Your task to perform on an android device: Go to CNN.com Image 0: 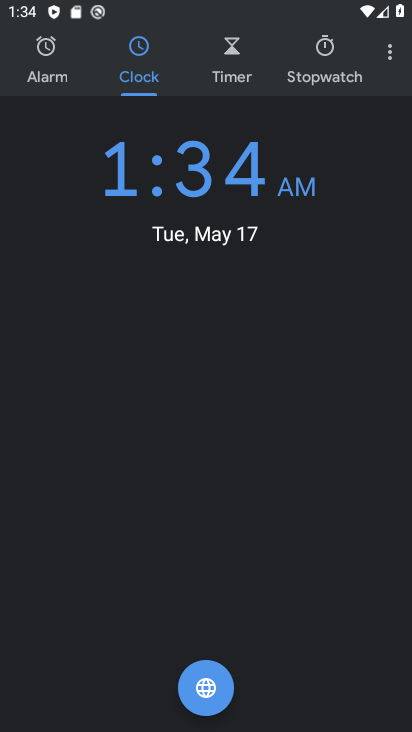
Step 0: press home button
Your task to perform on an android device: Go to CNN.com Image 1: 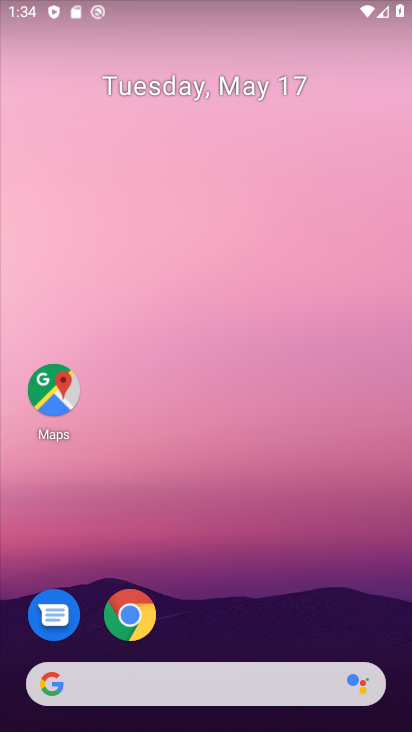
Step 1: click (132, 621)
Your task to perform on an android device: Go to CNN.com Image 2: 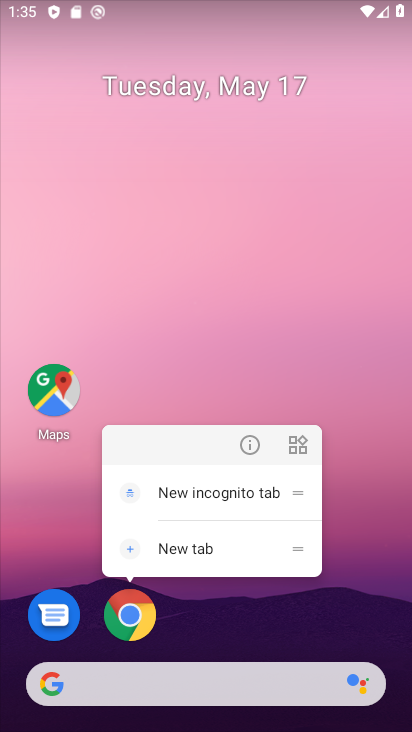
Step 2: click (126, 609)
Your task to perform on an android device: Go to CNN.com Image 3: 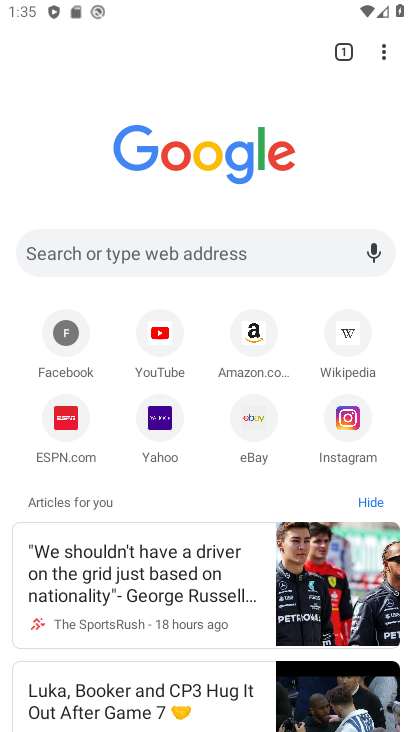
Step 3: click (121, 251)
Your task to perform on an android device: Go to CNN.com Image 4: 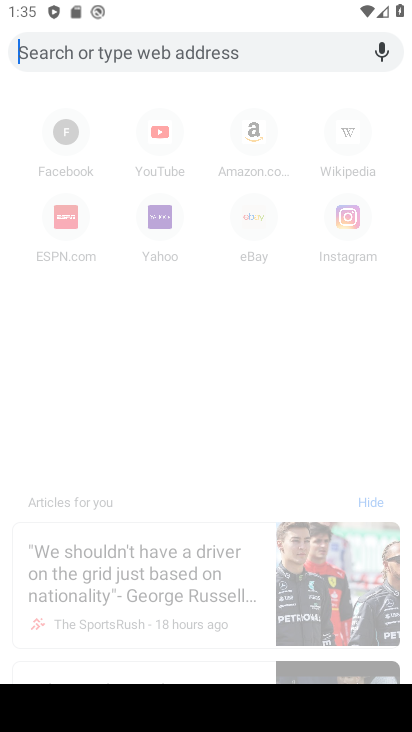
Step 4: type "CNN.com"
Your task to perform on an android device: Go to CNN.com Image 5: 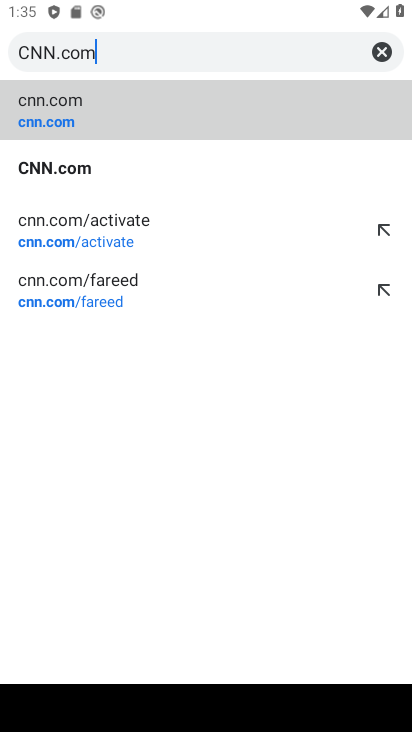
Step 5: click (30, 116)
Your task to perform on an android device: Go to CNN.com Image 6: 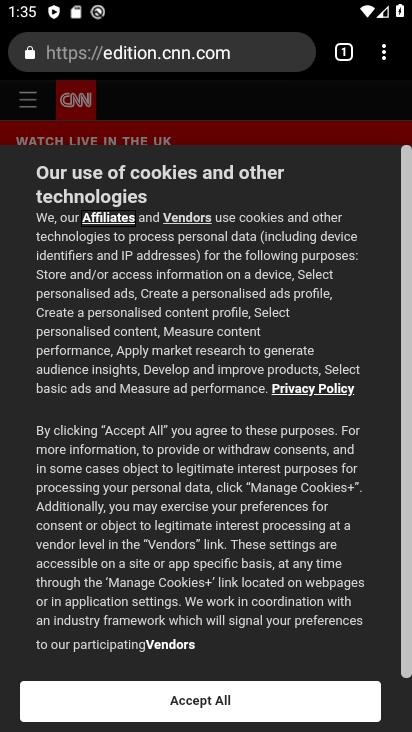
Step 6: task complete